Your task to perform on an android device: see sites visited before in the chrome app Image 0: 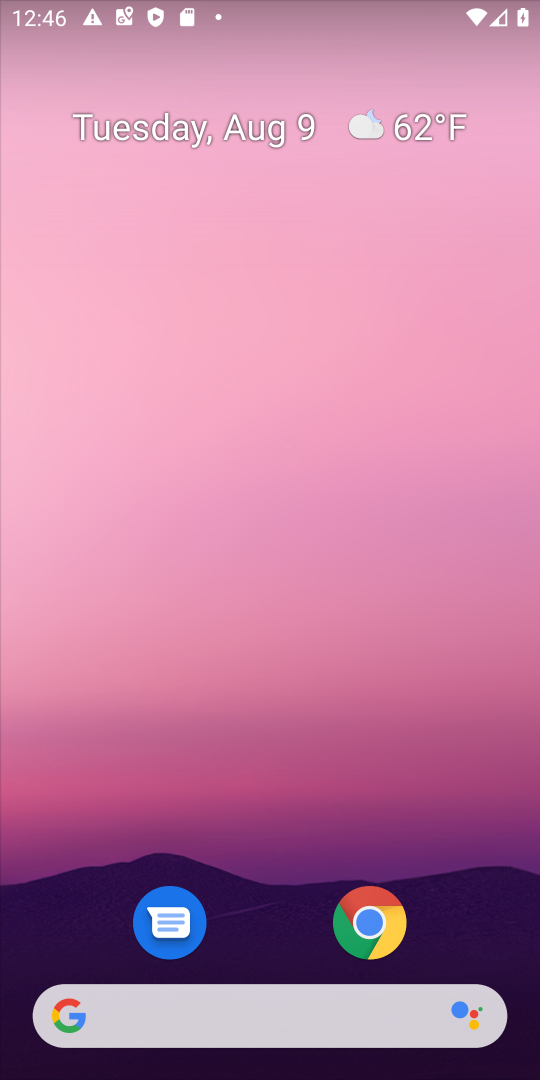
Step 0: click (373, 929)
Your task to perform on an android device: see sites visited before in the chrome app Image 1: 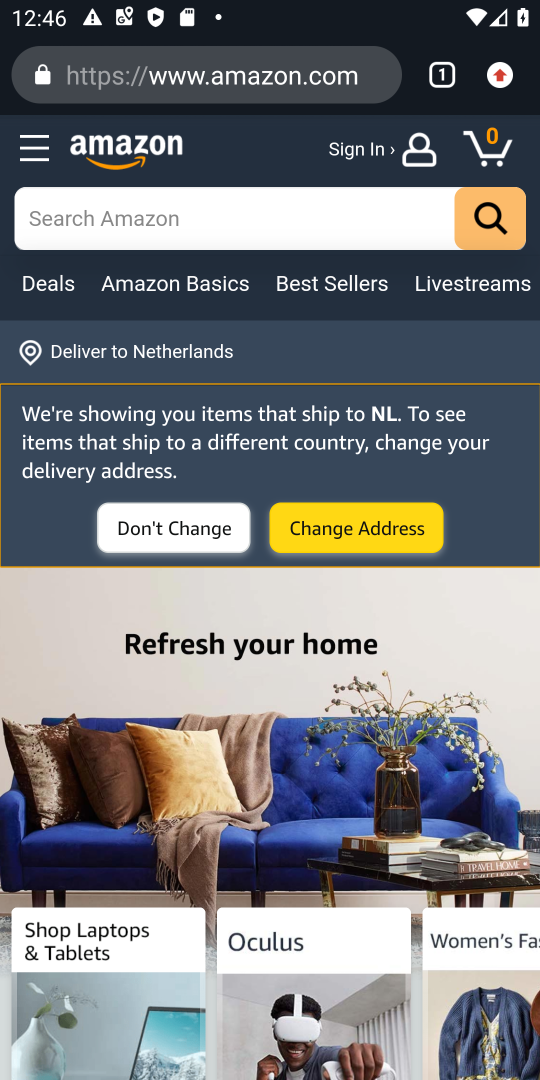
Step 1: click (491, 64)
Your task to perform on an android device: see sites visited before in the chrome app Image 2: 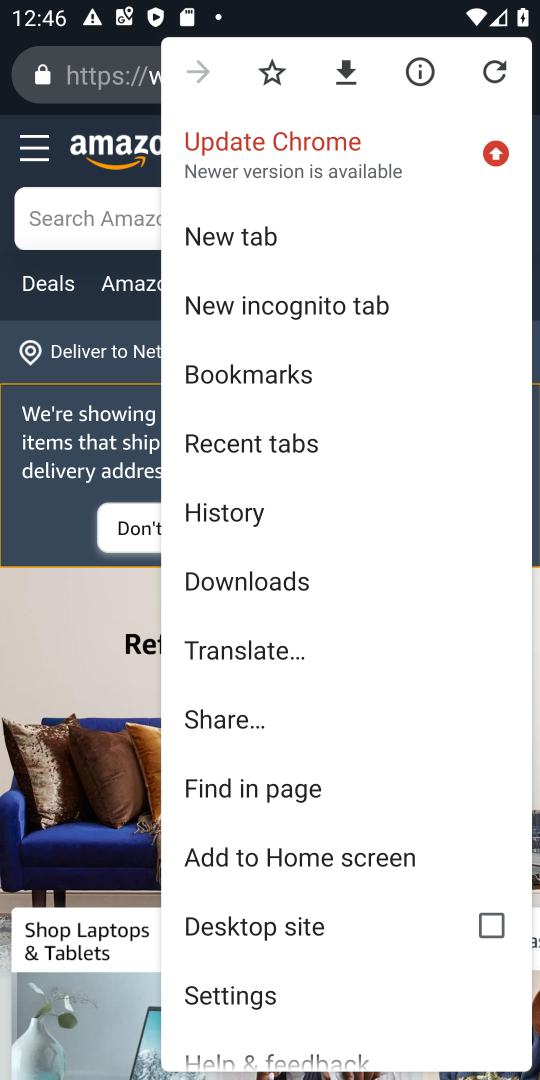
Step 2: click (238, 508)
Your task to perform on an android device: see sites visited before in the chrome app Image 3: 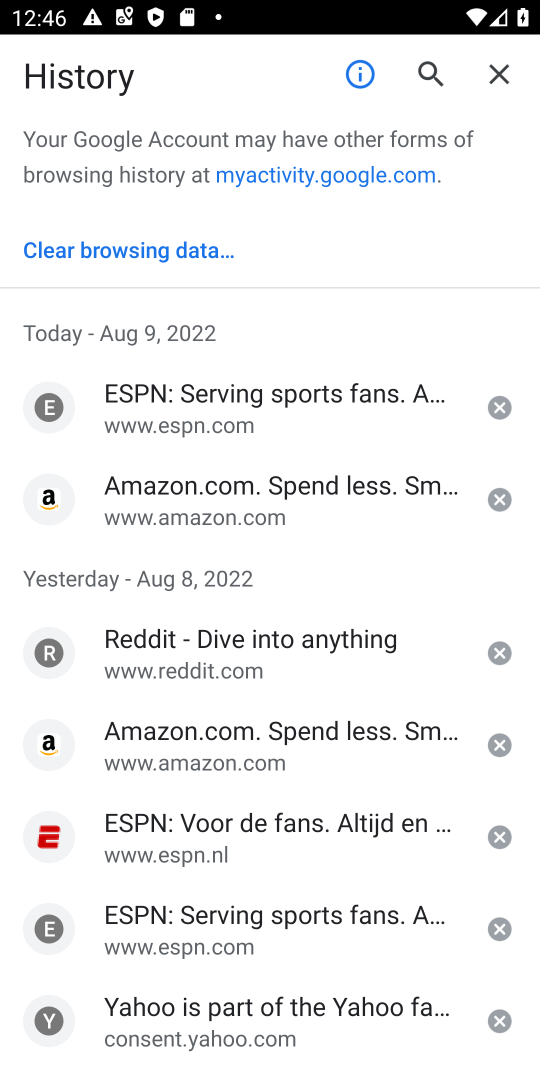
Step 3: task complete